Your task to perform on an android device: Go to notification settings Image 0: 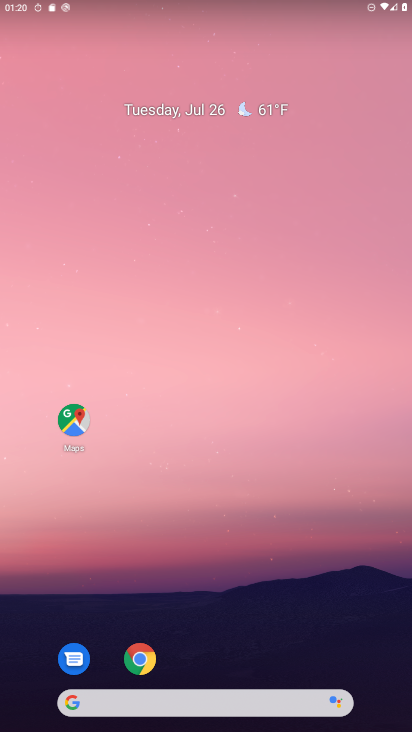
Step 0: drag from (22, 672) to (219, 276)
Your task to perform on an android device: Go to notification settings Image 1: 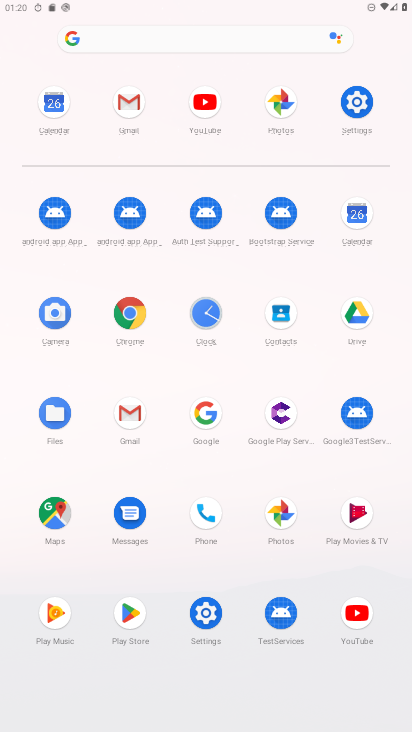
Step 1: click (196, 617)
Your task to perform on an android device: Go to notification settings Image 2: 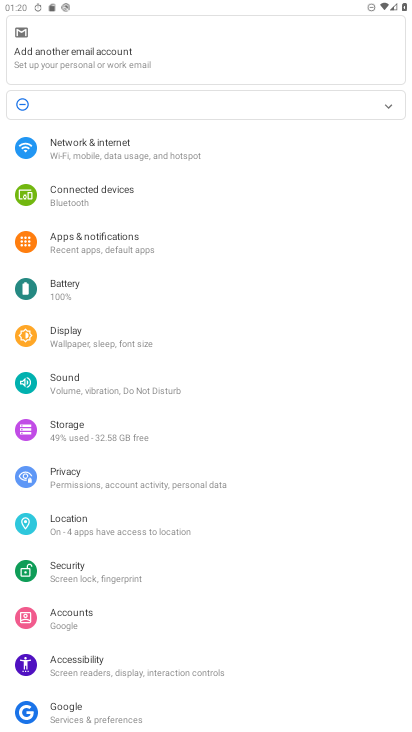
Step 2: click (130, 244)
Your task to perform on an android device: Go to notification settings Image 3: 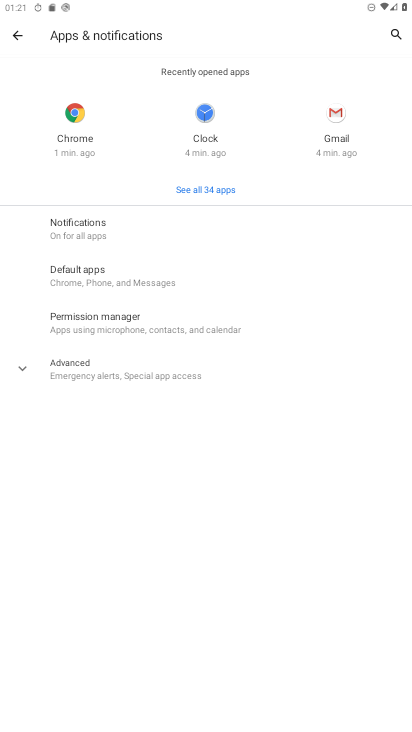
Step 3: task complete